Your task to perform on an android device: turn off airplane mode Image 0: 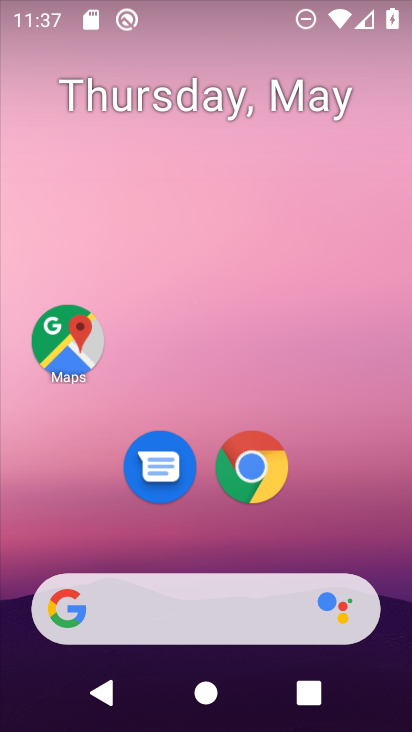
Step 0: drag from (217, 551) to (229, 222)
Your task to perform on an android device: turn off airplane mode Image 1: 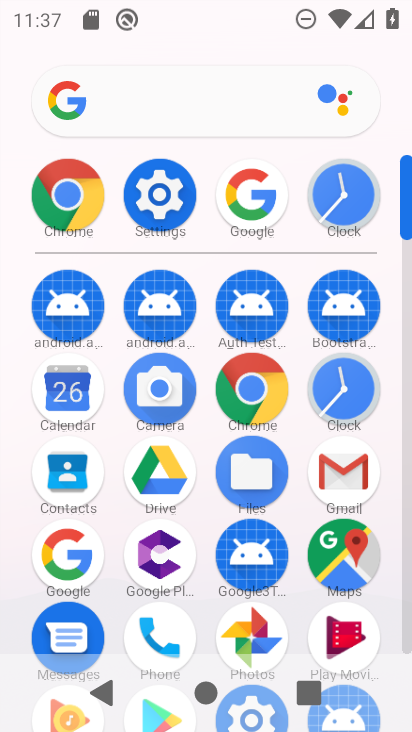
Step 1: drag from (203, 250) to (206, 135)
Your task to perform on an android device: turn off airplane mode Image 2: 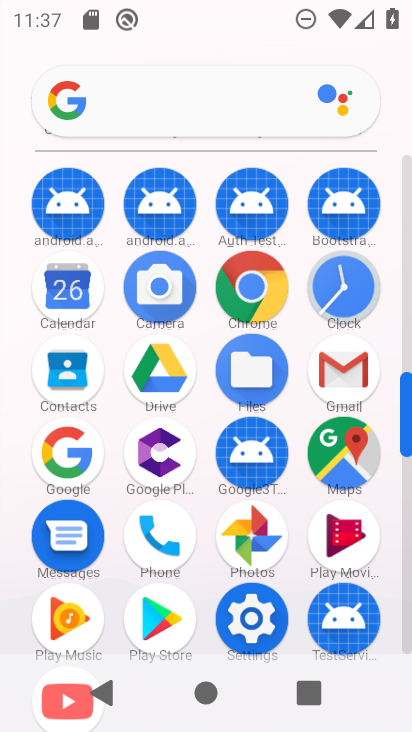
Step 2: click (247, 630)
Your task to perform on an android device: turn off airplane mode Image 3: 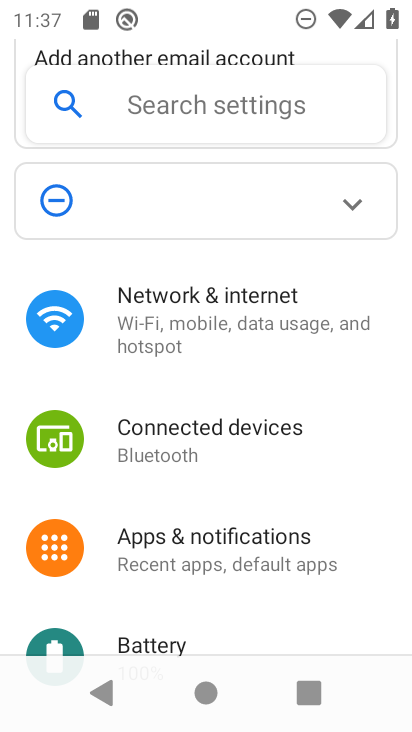
Step 3: click (218, 355)
Your task to perform on an android device: turn off airplane mode Image 4: 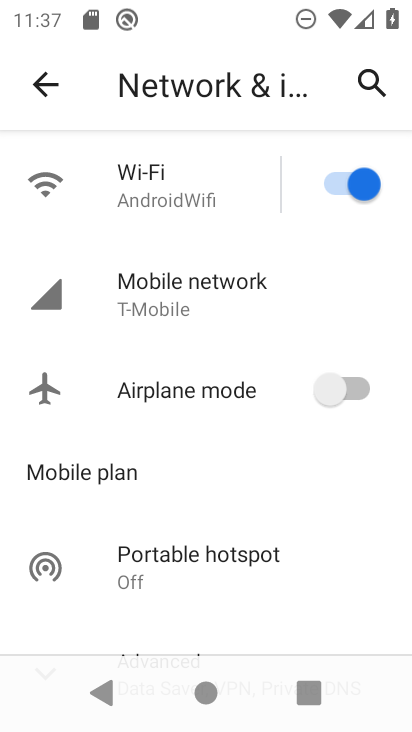
Step 4: task complete